Your task to perform on an android device: Go to Amazon Image 0: 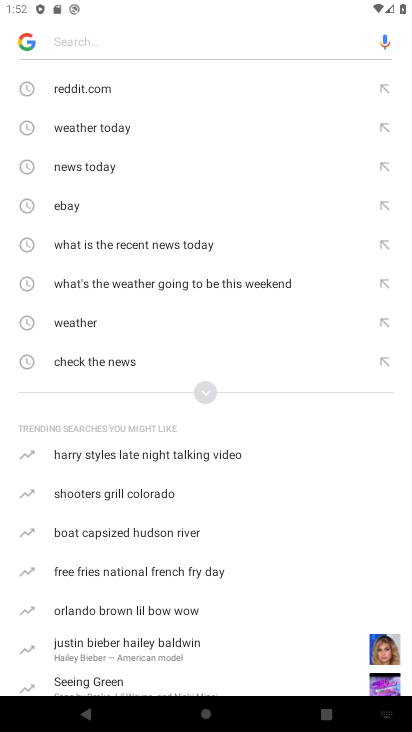
Step 0: press home button
Your task to perform on an android device: Go to Amazon Image 1: 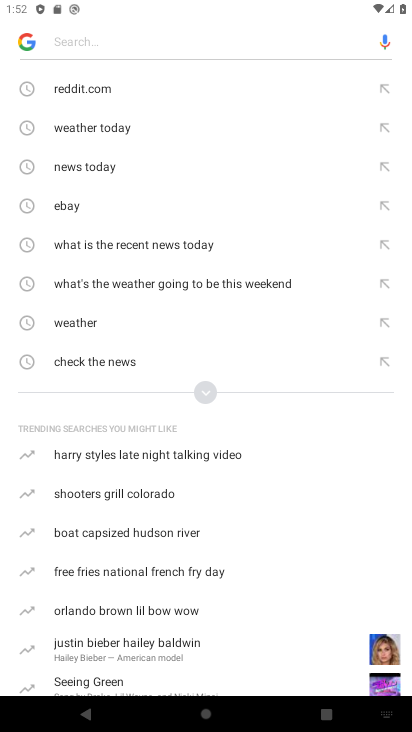
Step 1: press home button
Your task to perform on an android device: Go to Amazon Image 2: 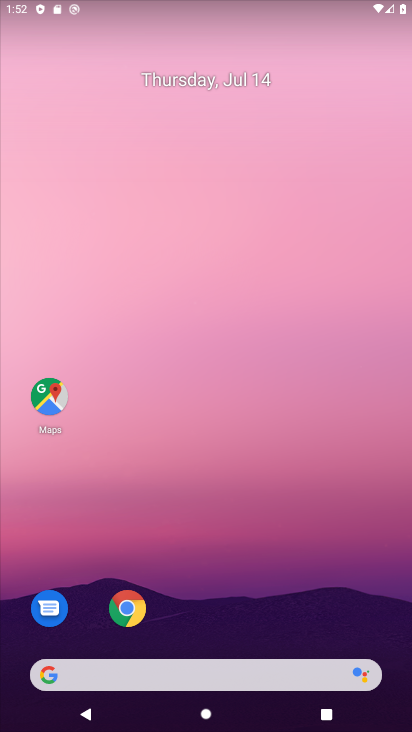
Step 2: click (127, 609)
Your task to perform on an android device: Go to Amazon Image 3: 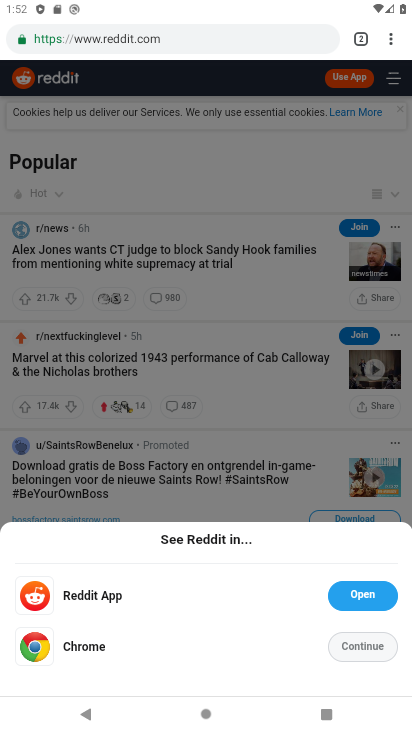
Step 3: click (393, 41)
Your task to perform on an android device: Go to Amazon Image 4: 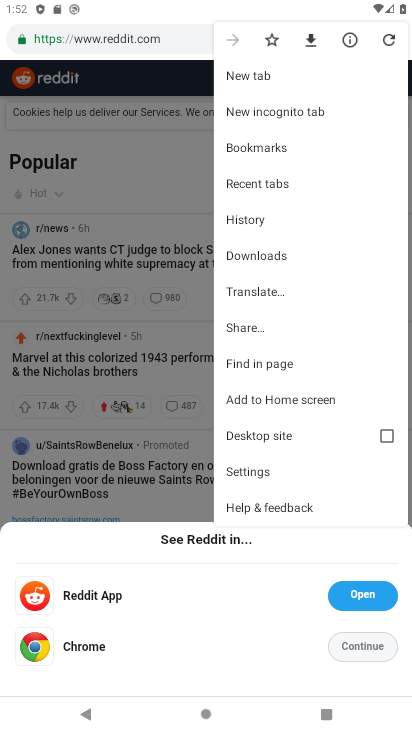
Step 4: click (255, 75)
Your task to perform on an android device: Go to Amazon Image 5: 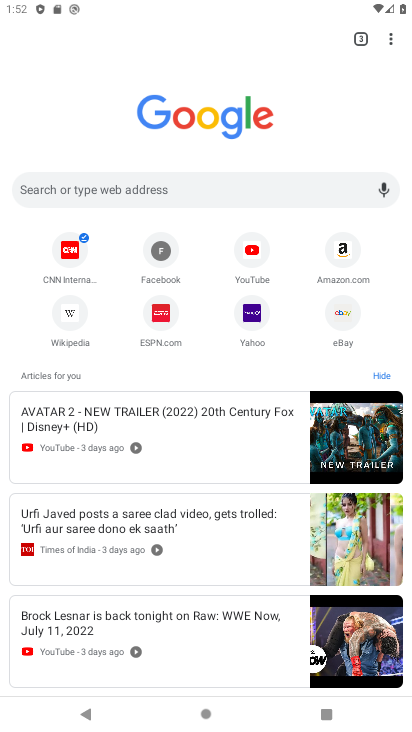
Step 5: click (339, 245)
Your task to perform on an android device: Go to Amazon Image 6: 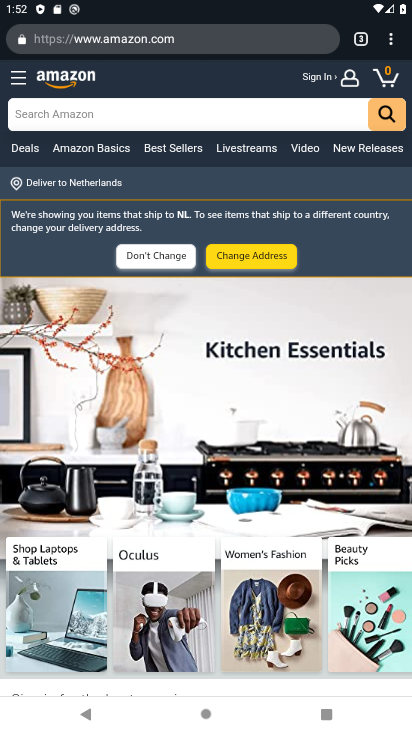
Step 6: task complete